Your task to perform on an android device: change the upload size in google photos Image 0: 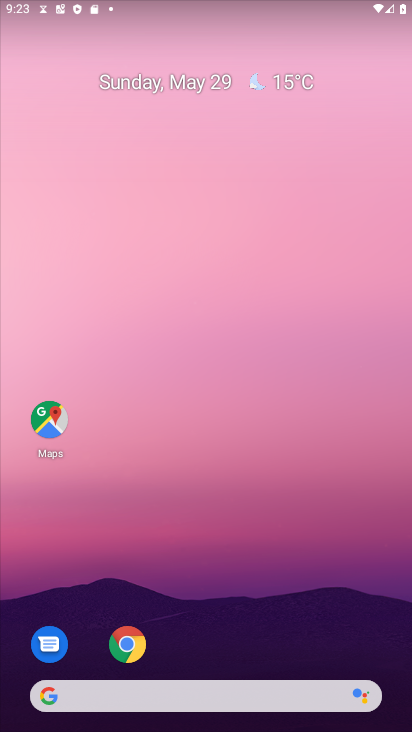
Step 0: drag from (224, 682) to (245, 173)
Your task to perform on an android device: change the upload size in google photos Image 1: 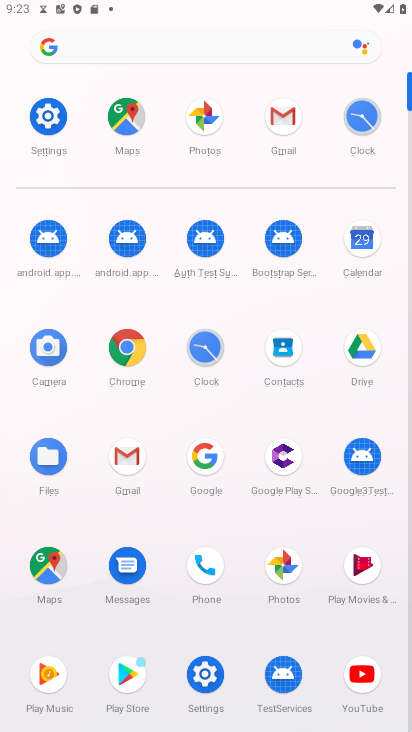
Step 1: click (207, 120)
Your task to perform on an android device: change the upload size in google photos Image 2: 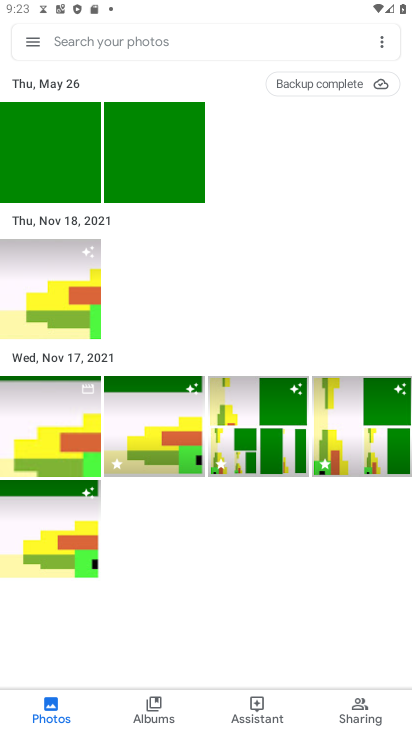
Step 2: click (31, 45)
Your task to perform on an android device: change the upload size in google photos Image 3: 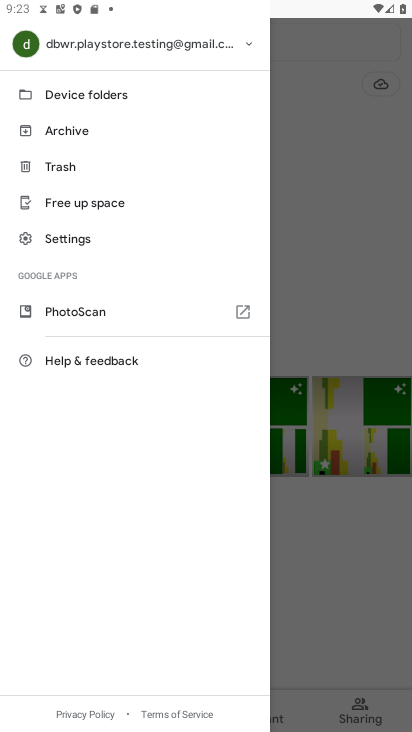
Step 3: click (82, 244)
Your task to perform on an android device: change the upload size in google photos Image 4: 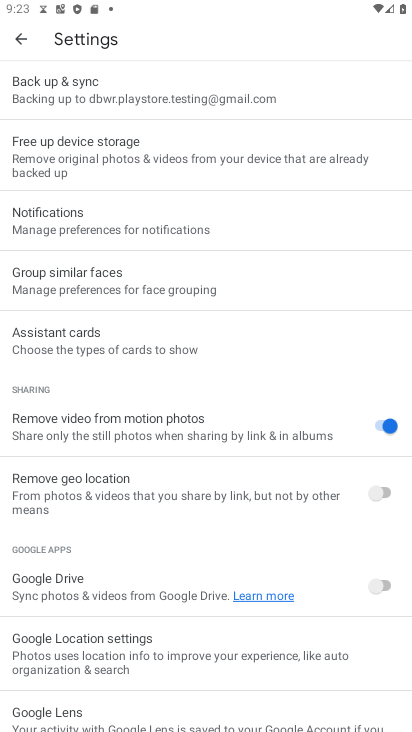
Step 4: click (101, 108)
Your task to perform on an android device: change the upload size in google photos Image 5: 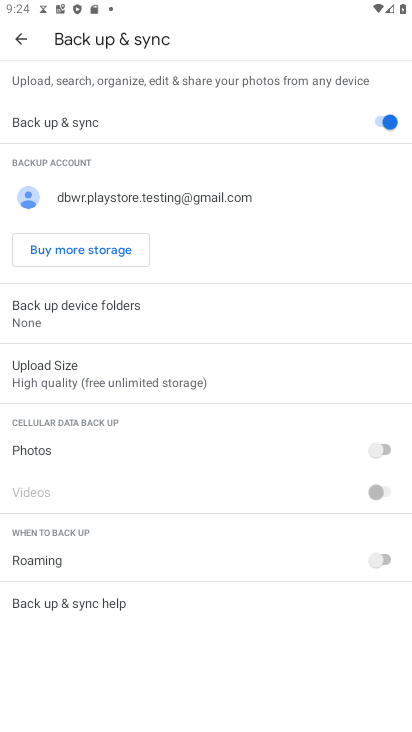
Step 5: click (118, 392)
Your task to perform on an android device: change the upload size in google photos Image 6: 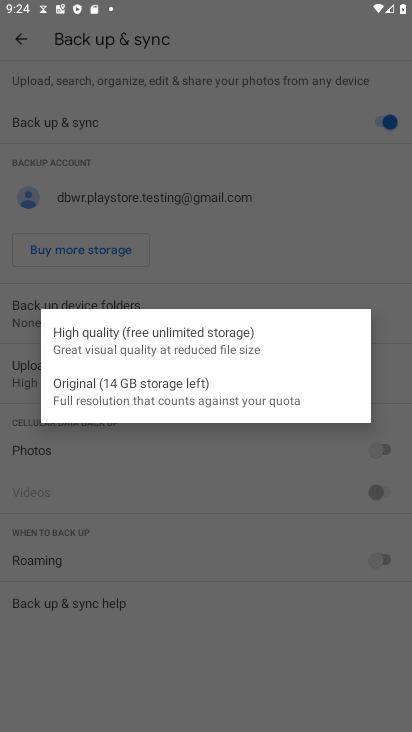
Step 6: click (109, 401)
Your task to perform on an android device: change the upload size in google photos Image 7: 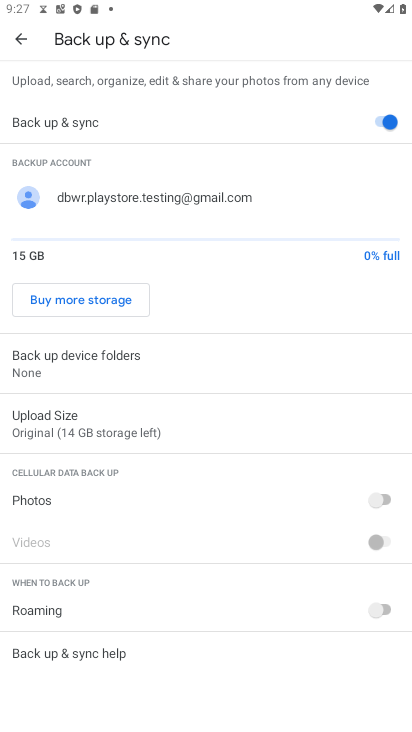
Step 7: click (116, 420)
Your task to perform on an android device: change the upload size in google photos Image 8: 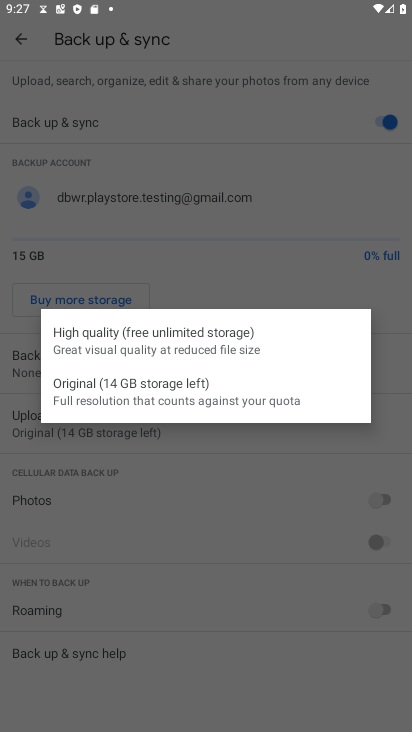
Step 8: click (118, 338)
Your task to perform on an android device: change the upload size in google photos Image 9: 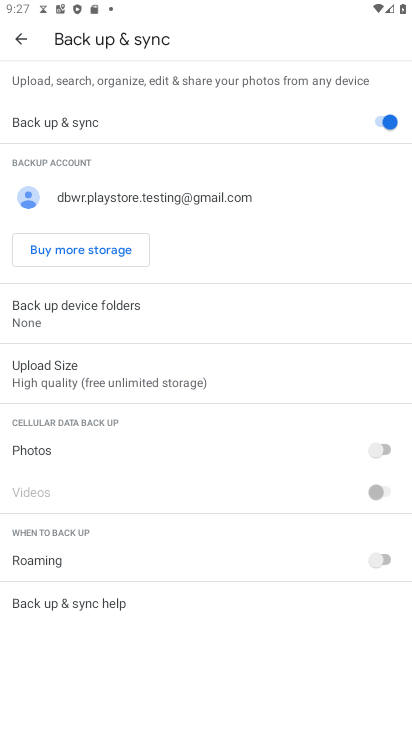
Step 9: task complete